Your task to perform on an android device: delete location history Image 0: 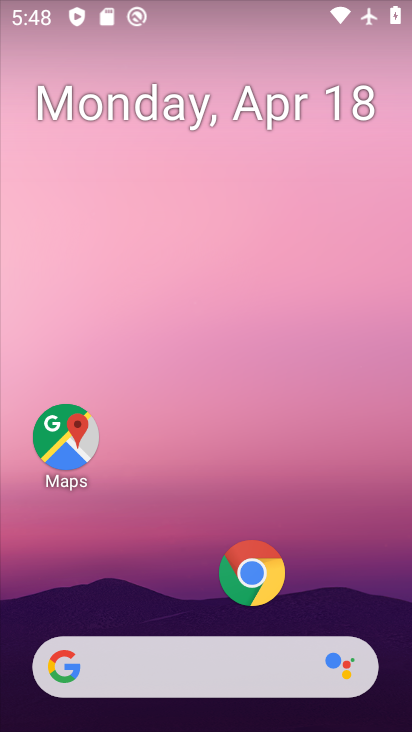
Step 0: drag from (196, 605) to (203, 512)
Your task to perform on an android device: delete location history Image 1: 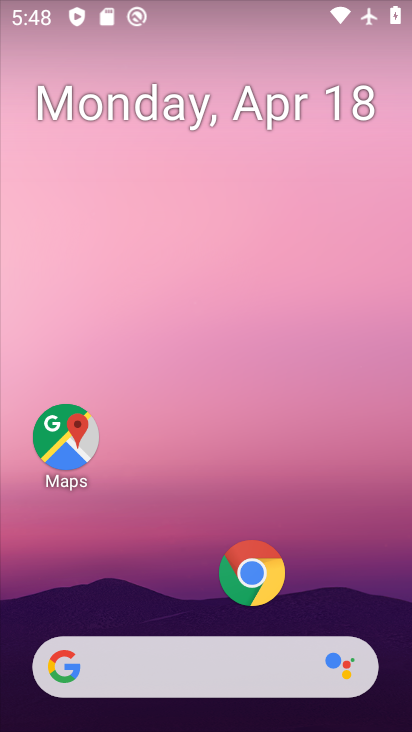
Step 1: click (48, 426)
Your task to perform on an android device: delete location history Image 2: 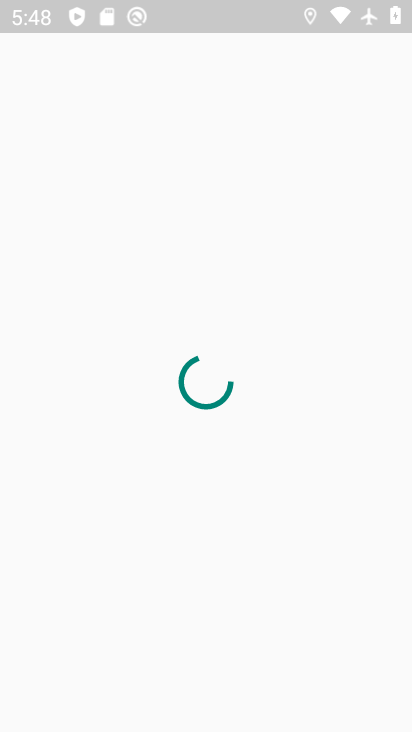
Step 2: click (51, 80)
Your task to perform on an android device: delete location history Image 3: 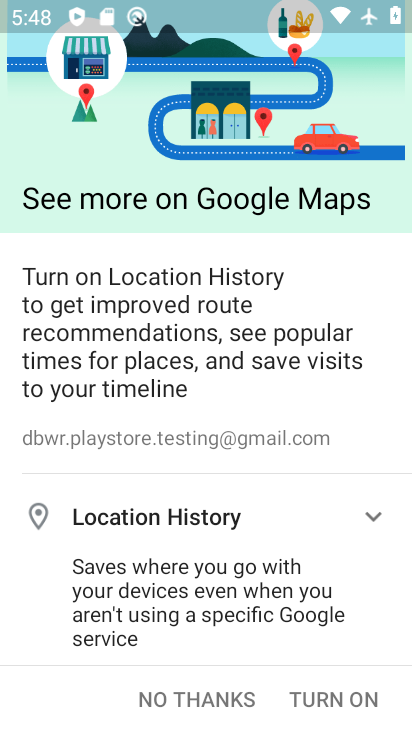
Step 3: click (297, 693)
Your task to perform on an android device: delete location history Image 4: 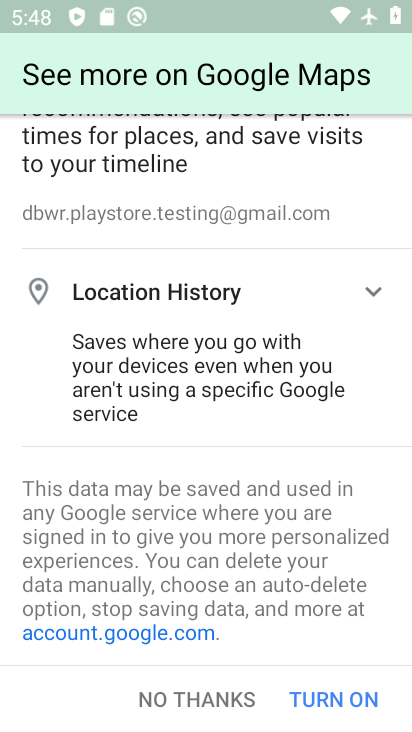
Step 4: click (198, 706)
Your task to perform on an android device: delete location history Image 5: 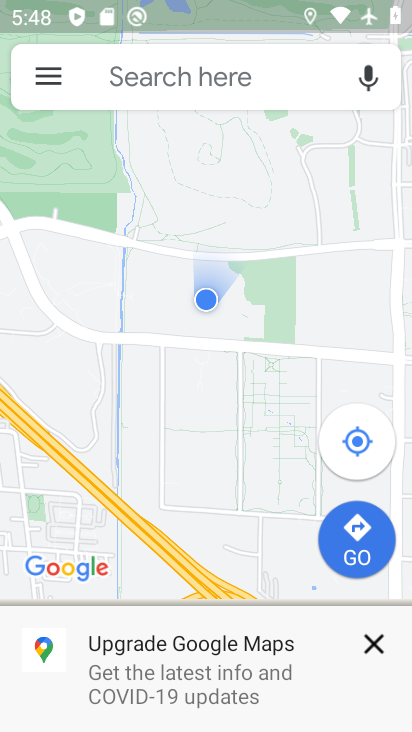
Step 5: click (35, 82)
Your task to perform on an android device: delete location history Image 6: 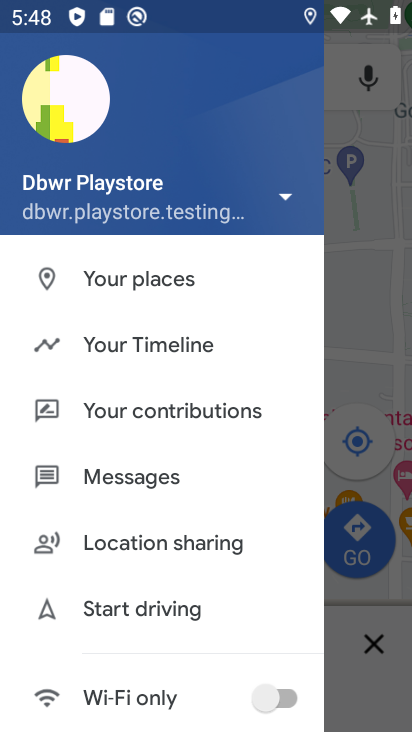
Step 6: click (165, 345)
Your task to perform on an android device: delete location history Image 7: 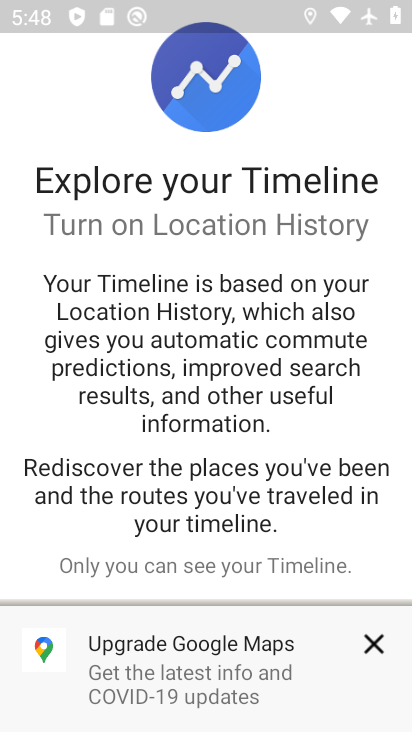
Step 7: click (368, 646)
Your task to perform on an android device: delete location history Image 8: 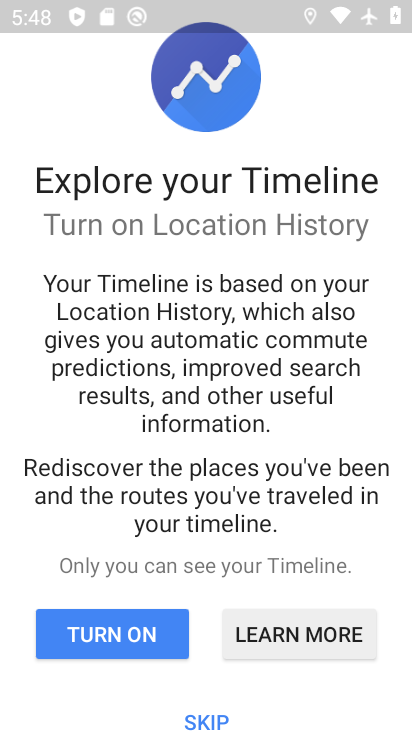
Step 8: click (207, 716)
Your task to perform on an android device: delete location history Image 9: 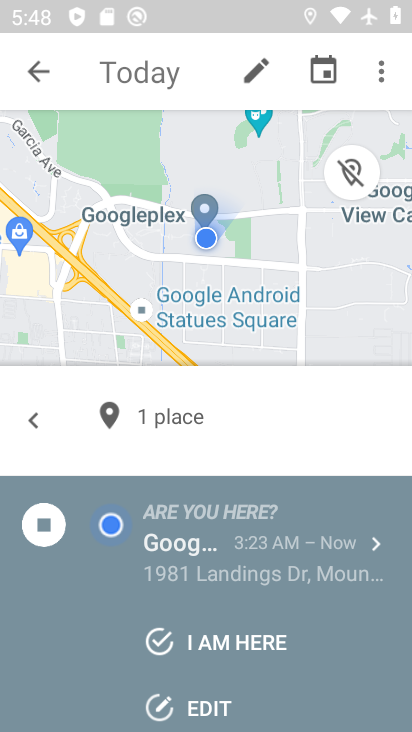
Step 9: click (379, 65)
Your task to perform on an android device: delete location history Image 10: 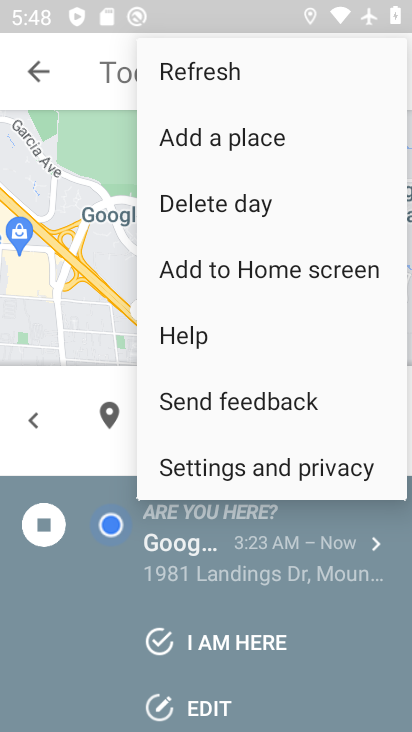
Step 10: click (221, 471)
Your task to perform on an android device: delete location history Image 11: 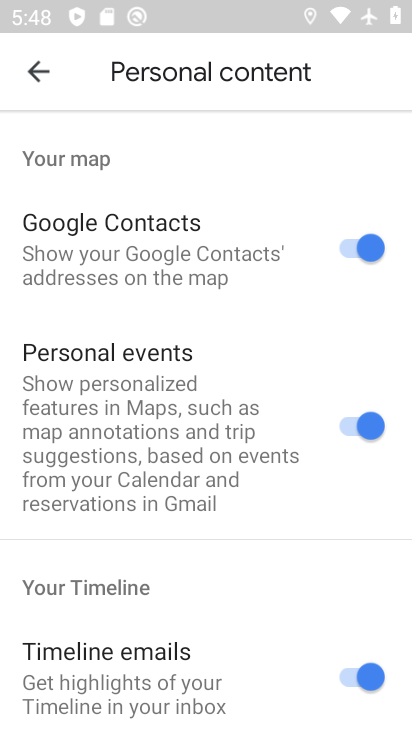
Step 11: drag from (193, 563) to (243, 238)
Your task to perform on an android device: delete location history Image 12: 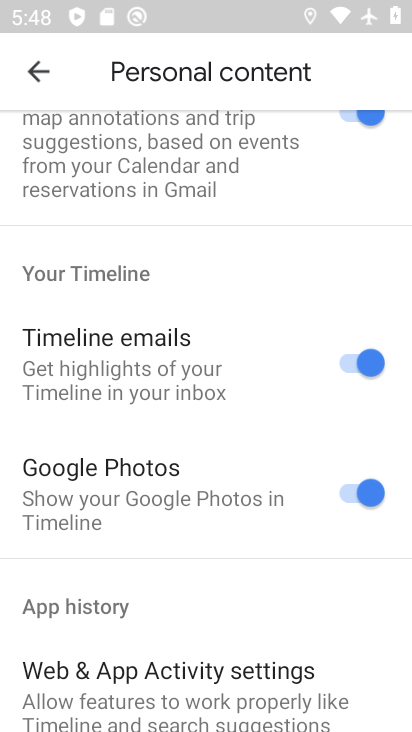
Step 12: drag from (182, 569) to (244, 267)
Your task to perform on an android device: delete location history Image 13: 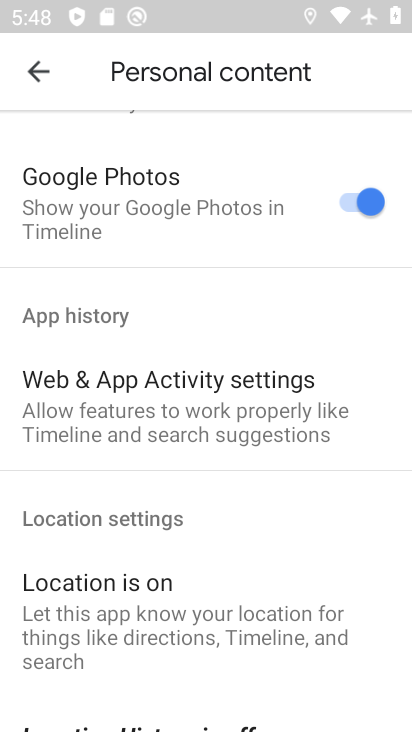
Step 13: drag from (134, 628) to (165, 368)
Your task to perform on an android device: delete location history Image 14: 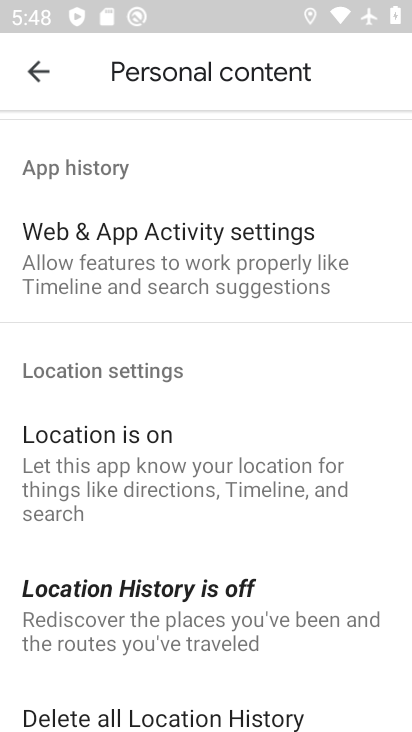
Step 14: drag from (134, 623) to (250, 22)
Your task to perform on an android device: delete location history Image 15: 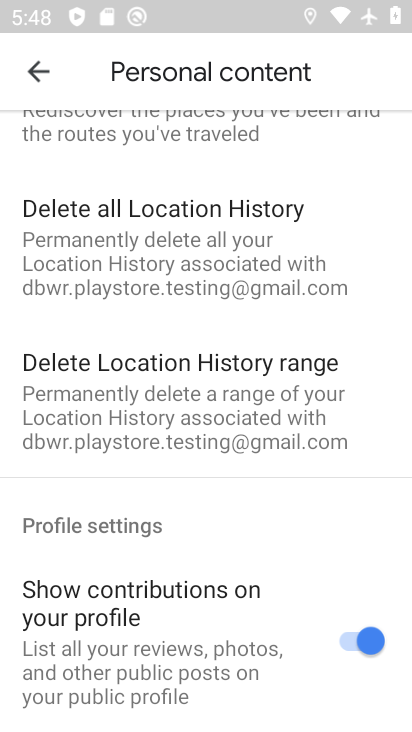
Step 15: click (153, 246)
Your task to perform on an android device: delete location history Image 16: 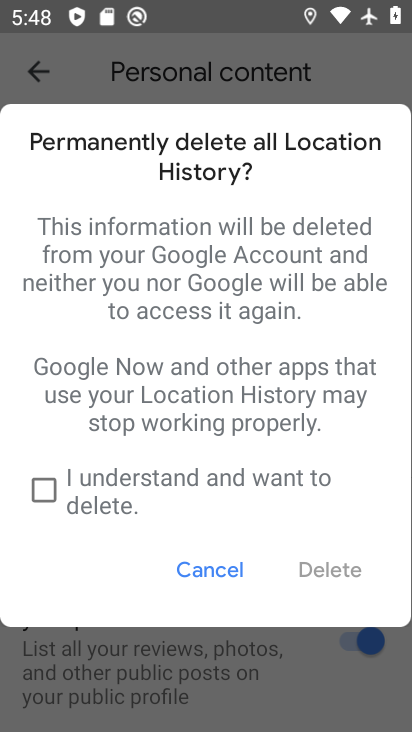
Step 16: click (48, 493)
Your task to perform on an android device: delete location history Image 17: 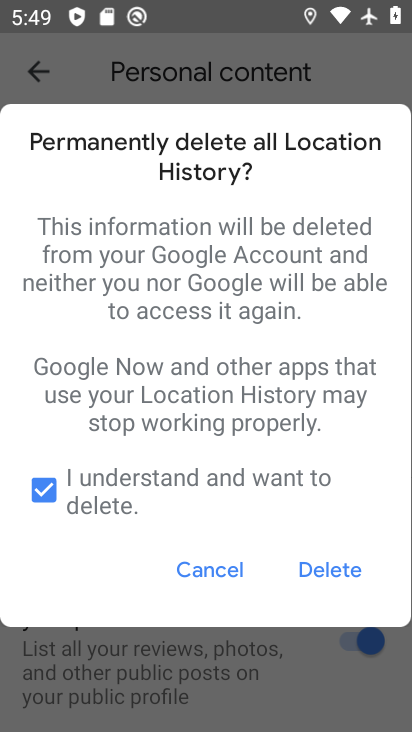
Step 17: click (348, 572)
Your task to perform on an android device: delete location history Image 18: 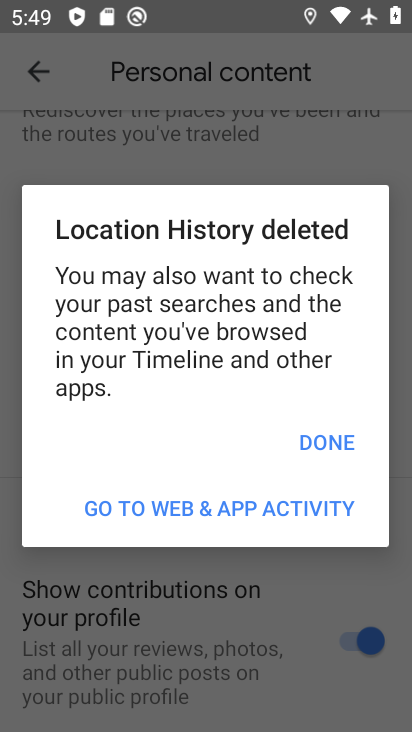
Step 18: click (327, 441)
Your task to perform on an android device: delete location history Image 19: 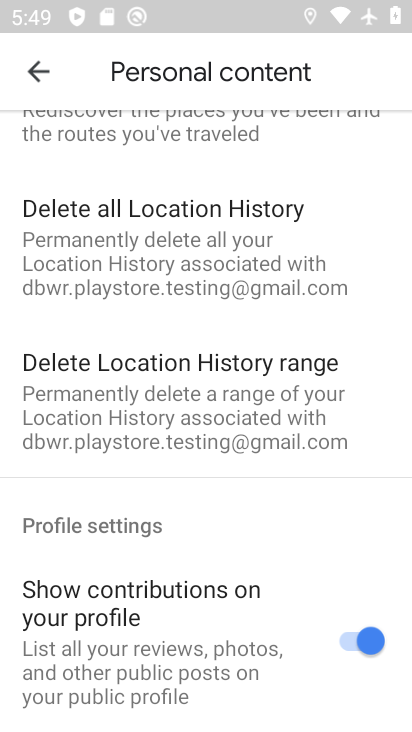
Step 19: task complete